Your task to perform on an android device: Search for Italian restaurants on Maps Image 0: 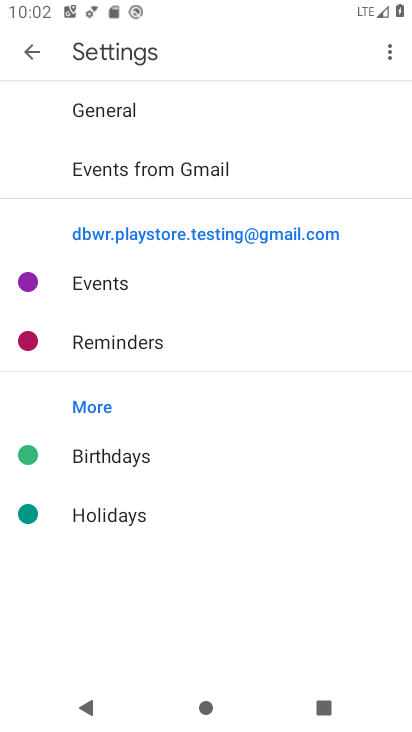
Step 0: press home button
Your task to perform on an android device: Search for Italian restaurants on Maps Image 1: 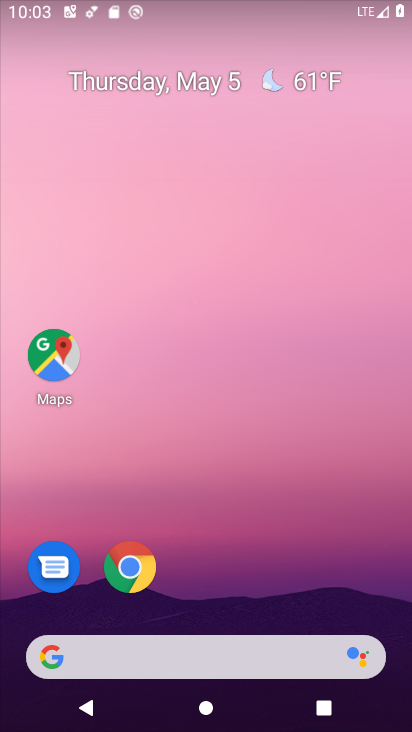
Step 1: click (64, 358)
Your task to perform on an android device: Search for Italian restaurants on Maps Image 2: 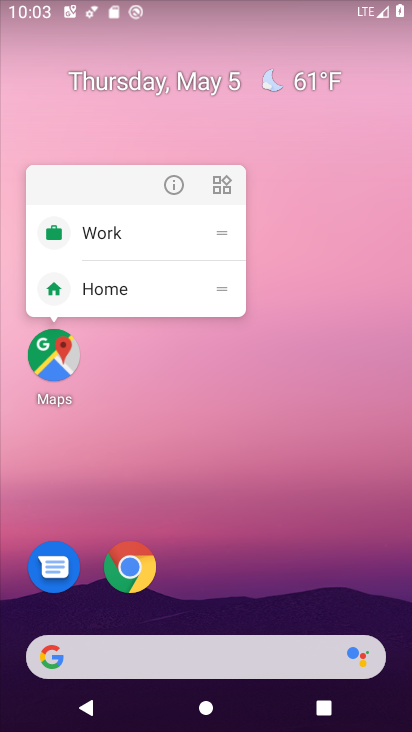
Step 2: click (50, 359)
Your task to perform on an android device: Search for Italian restaurants on Maps Image 3: 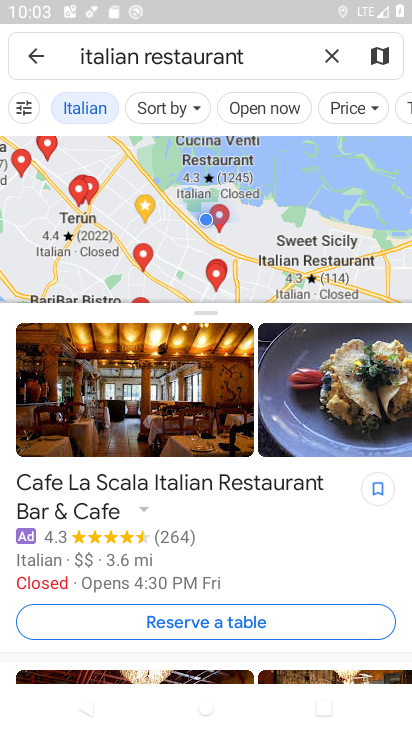
Step 3: task complete